Your task to perform on an android device: Open privacy settings Image 0: 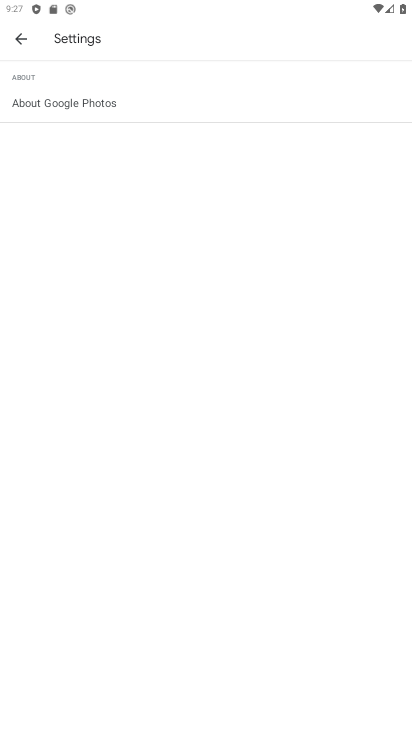
Step 0: press home button
Your task to perform on an android device: Open privacy settings Image 1: 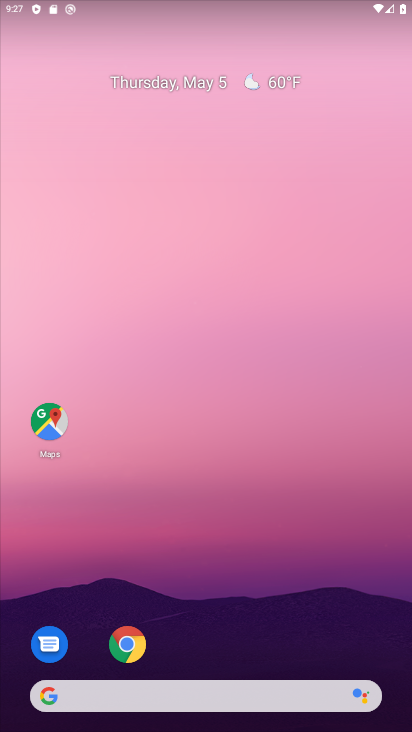
Step 1: drag from (347, 629) to (339, 168)
Your task to perform on an android device: Open privacy settings Image 2: 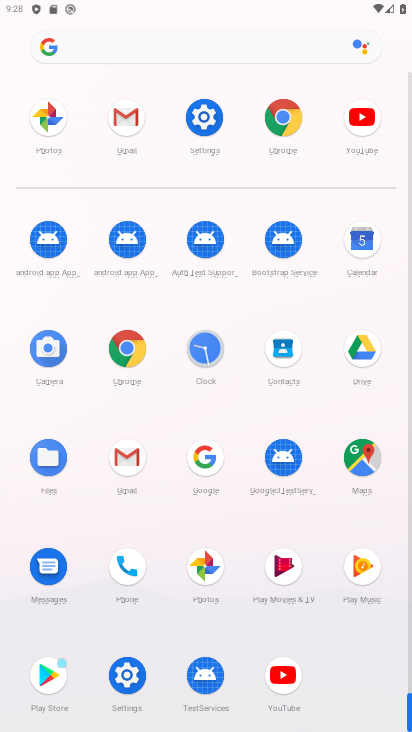
Step 2: click (125, 680)
Your task to perform on an android device: Open privacy settings Image 3: 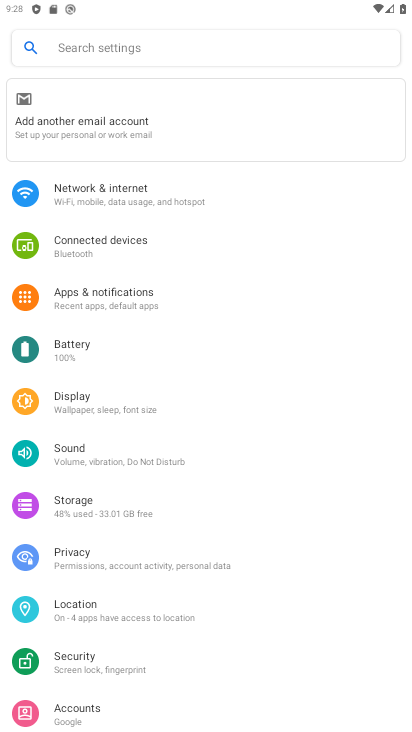
Step 3: click (158, 559)
Your task to perform on an android device: Open privacy settings Image 4: 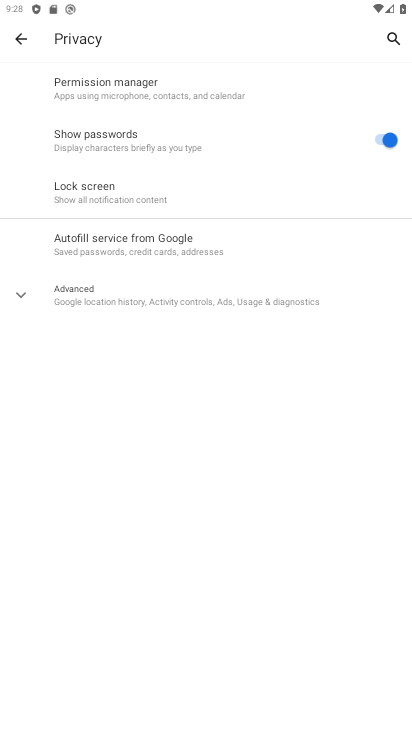
Step 4: task complete